Your task to perform on an android device: Show me recent news Image 0: 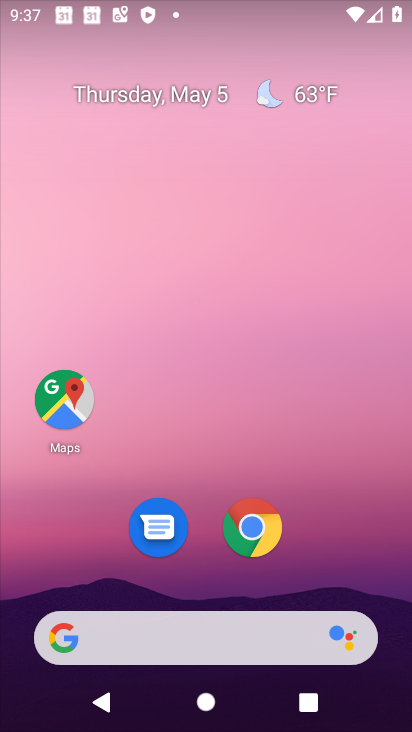
Step 0: click (266, 653)
Your task to perform on an android device: Show me recent news Image 1: 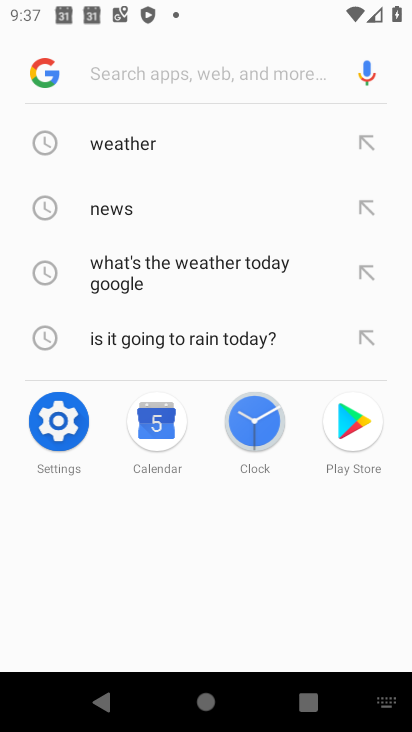
Step 1: type "recent news"
Your task to perform on an android device: Show me recent news Image 2: 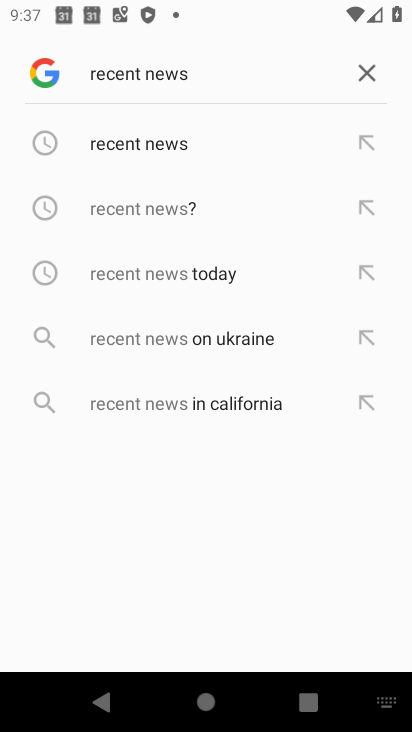
Step 2: click (166, 161)
Your task to perform on an android device: Show me recent news Image 3: 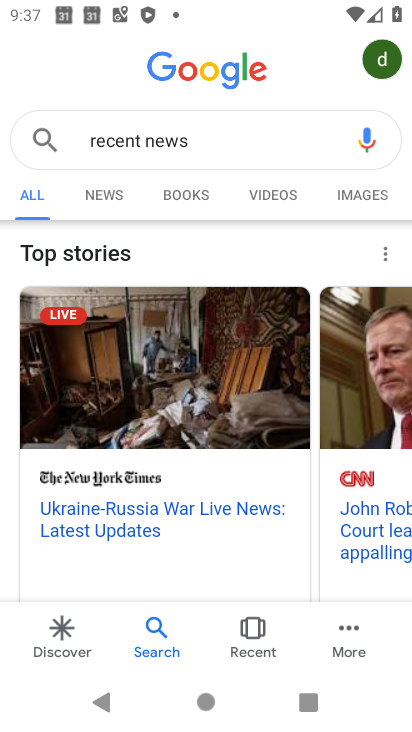
Step 3: task complete